Your task to perform on an android device: Open Youtube and go to the subscriptions tab Image 0: 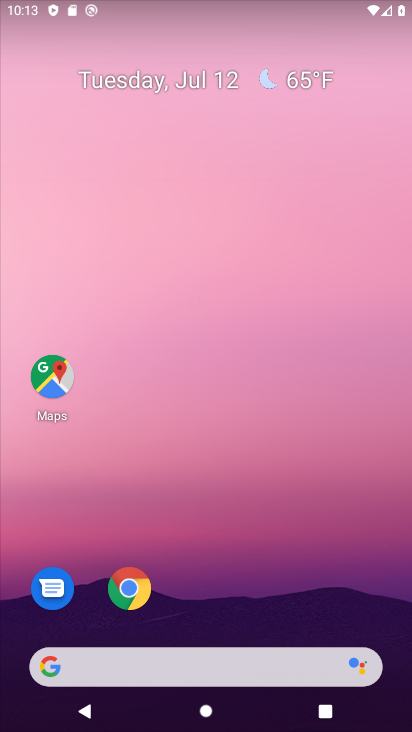
Step 0: drag from (32, 691) to (256, 23)
Your task to perform on an android device: Open Youtube and go to the subscriptions tab Image 1: 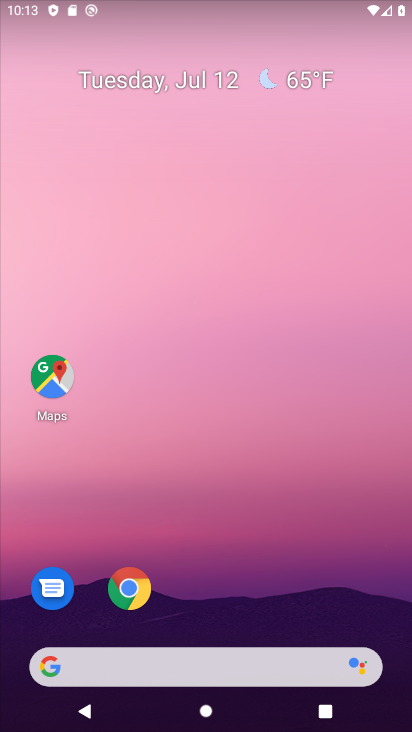
Step 1: drag from (54, 675) to (165, 81)
Your task to perform on an android device: Open Youtube and go to the subscriptions tab Image 2: 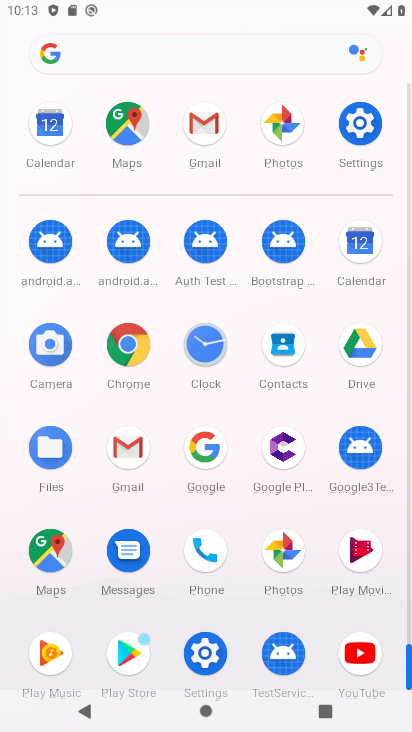
Step 2: click (366, 656)
Your task to perform on an android device: Open Youtube and go to the subscriptions tab Image 3: 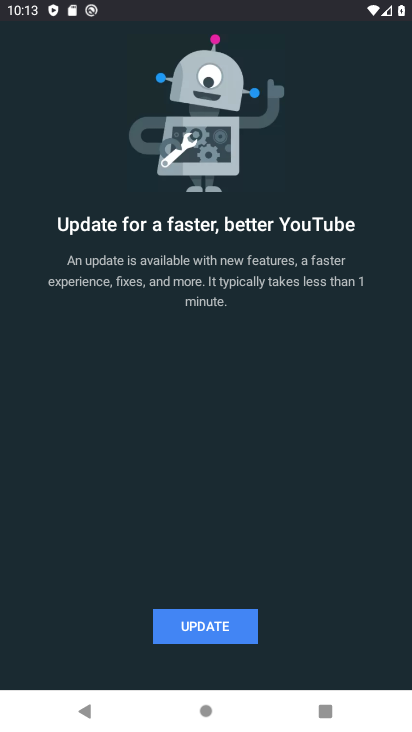
Step 3: click (221, 629)
Your task to perform on an android device: Open Youtube and go to the subscriptions tab Image 4: 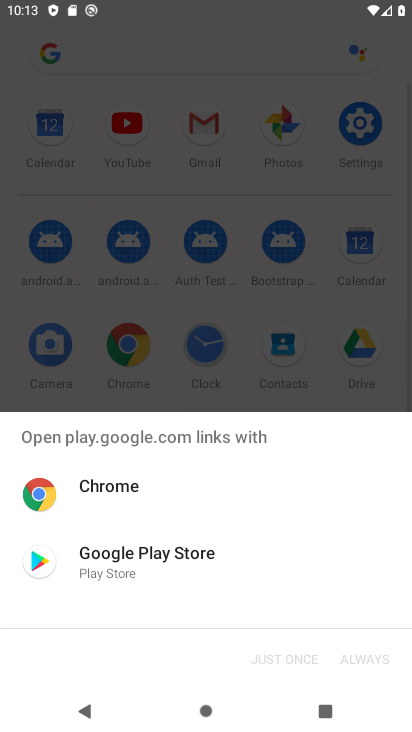
Step 4: click (99, 557)
Your task to perform on an android device: Open Youtube and go to the subscriptions tab Image 5: 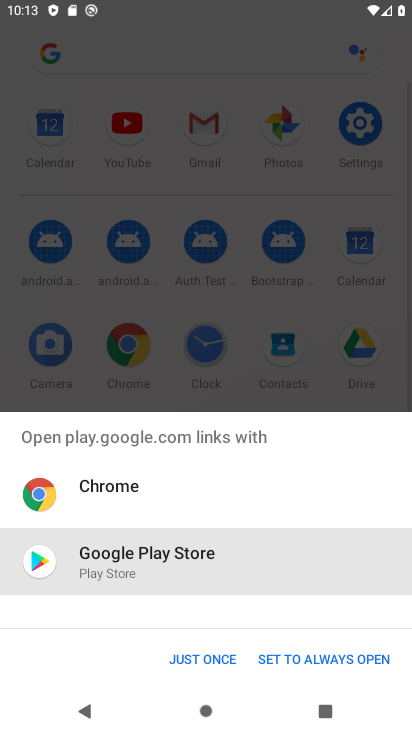
Step 5: click (184, 652)
Your task to perform on an android device: Open Youtube and go to the subscriptions tab Image 6: 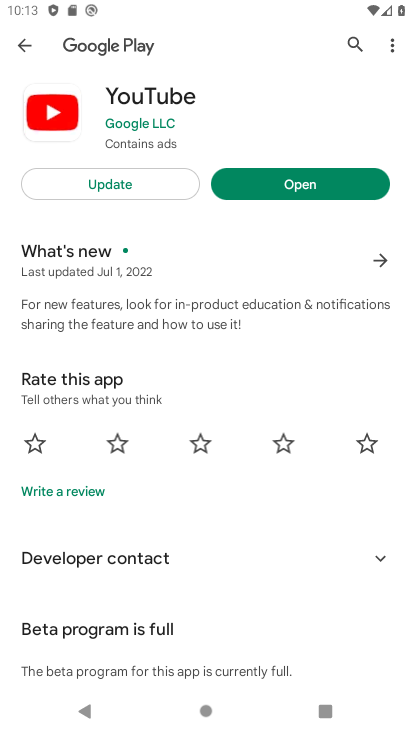
Step 6: click (298, 192)
Your task to perform on an android device: Open Youtube and go to the subscriptions tab Image 7: 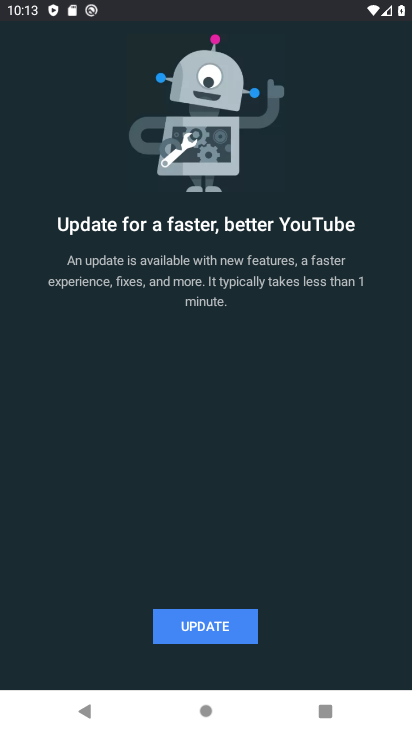
Step 7: task complete